Your task to perform on an android device: turn off wifi Image 0: 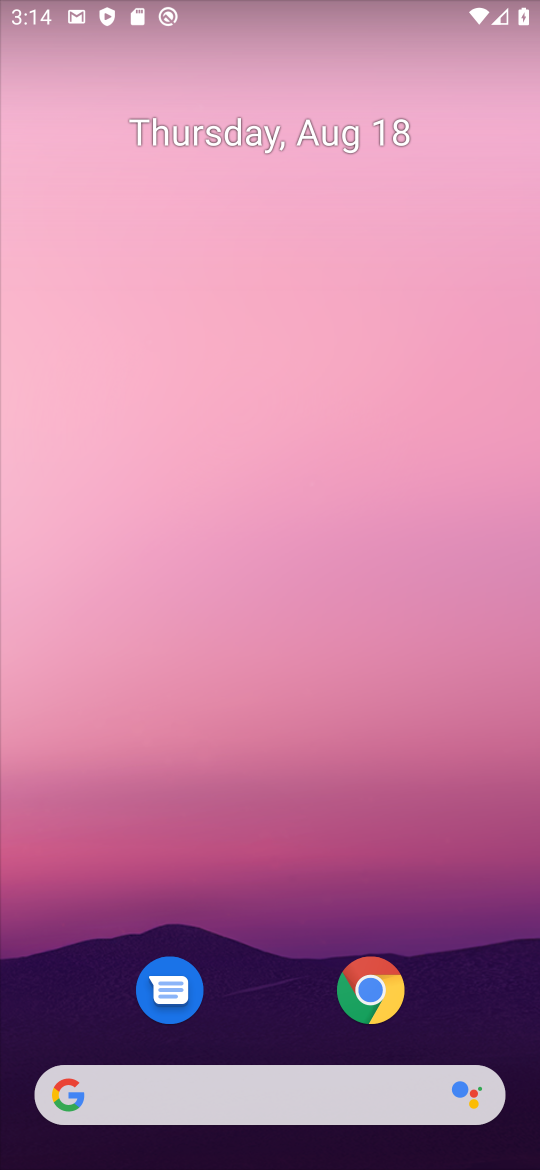
Step 0: drag from (277, 949) to (246, 189)
Your task to perform on an android device: turn off wifi Image 1: 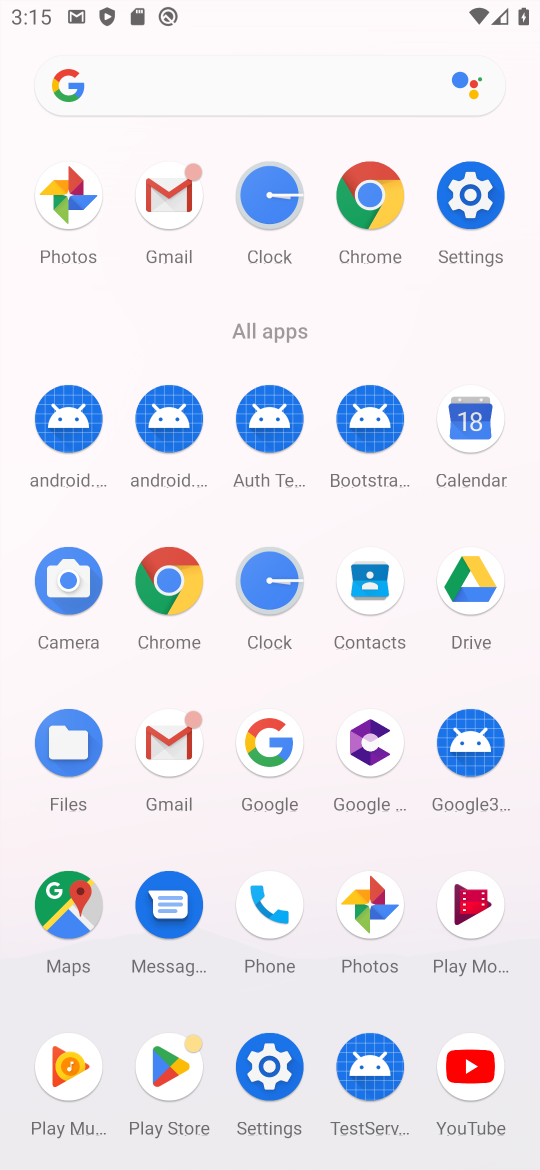
Step 1: click (252, 1058)
Your task to perform on an android device: turn off wifi Image 2: 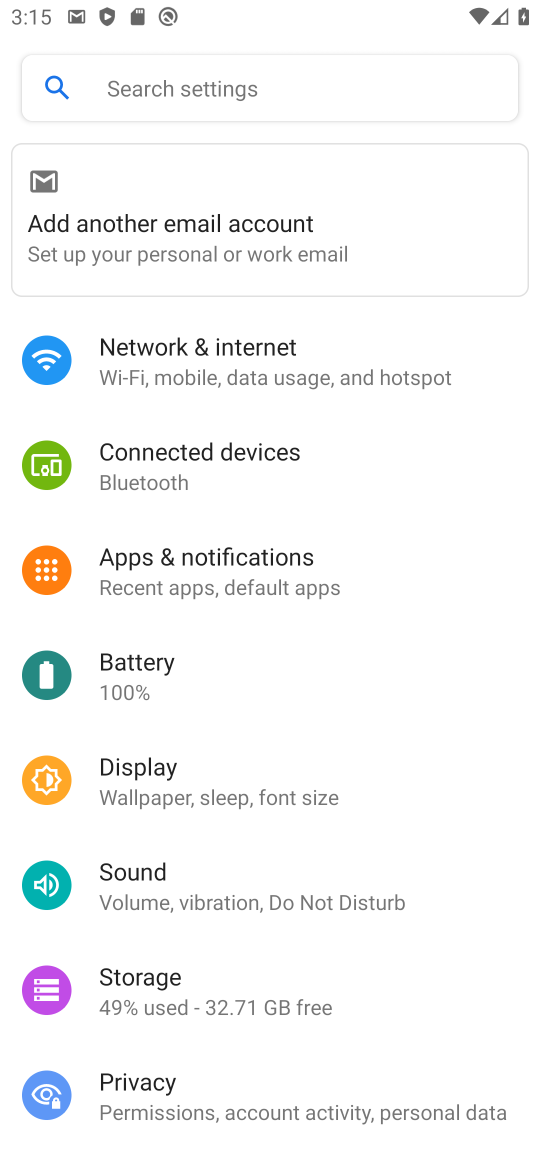
Step 2: click (233, 367)
Your task to perform on an android device: turn off wifi Image 3: 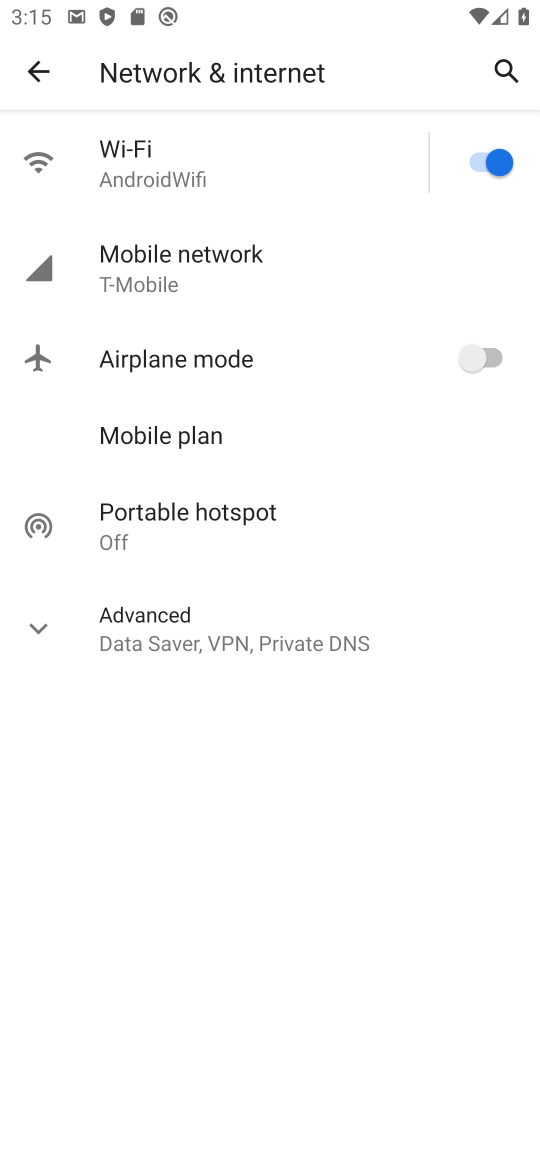
Step 3: click (498, 187)
Your task to perform on an android device: turn off wifi Image 4: 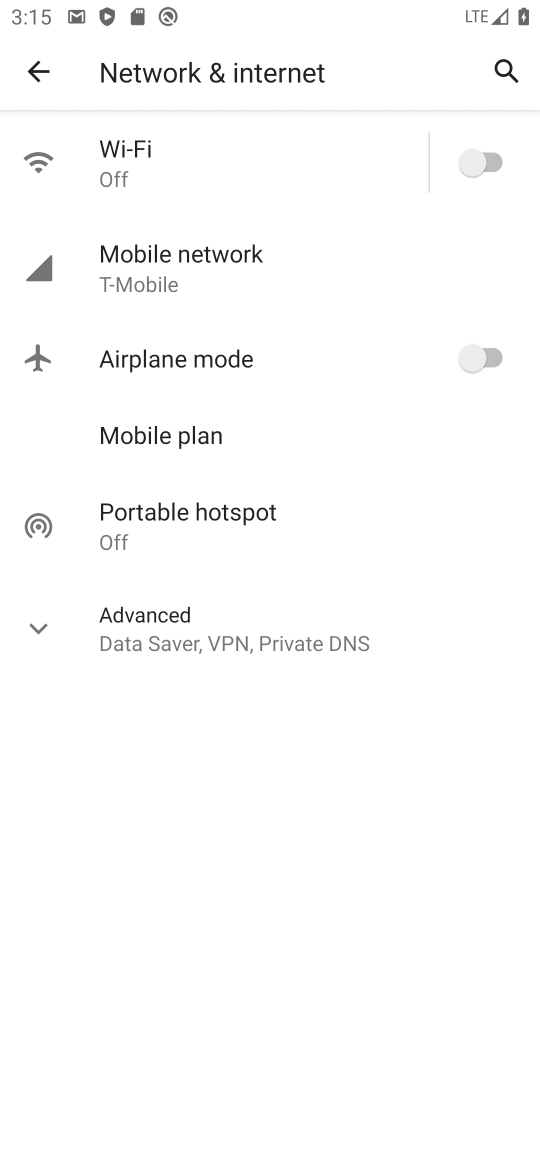
Step 4: task complete